Your task to perform on an android device: Search for Italian restaurants on Maps Image 0: 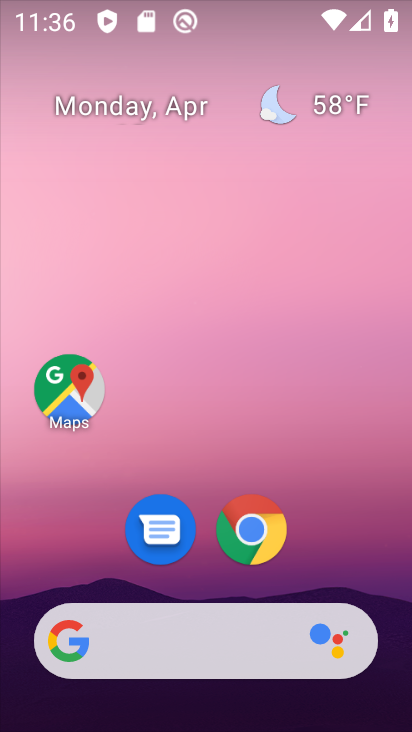
Step 0: drag from (397, 603) to (219, 51)
Your task to perform on an android device: Search for Italian restaurants on Maps Image 1: 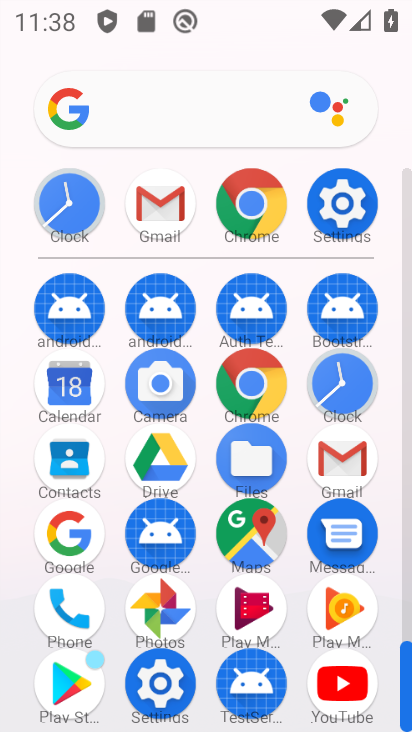
Step 1: click (267, 526)
Your task to perform on an android device: Search for Italian restaurants on Maps Image 2: 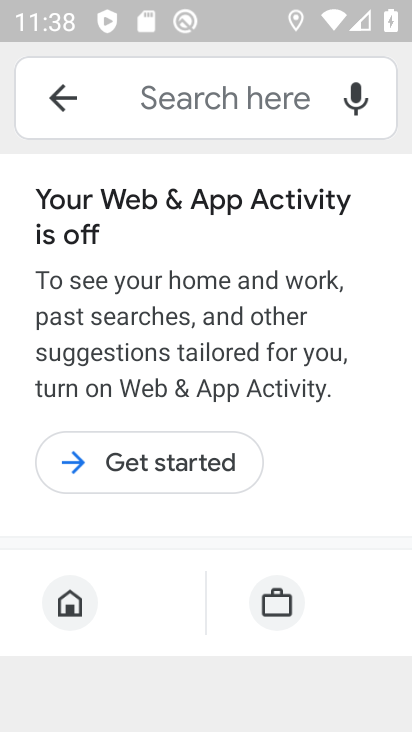
Step 2: click (103, 466)
Your task to perform on an android device: Search for Italian restaurants on Maps Image 3: 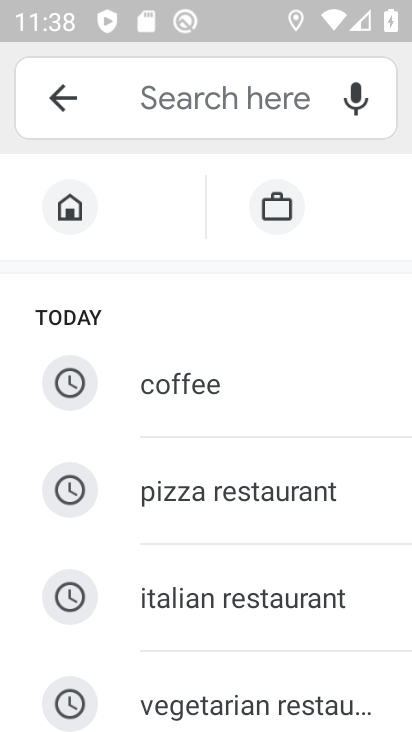
Step 3: click (259, 591)
Your task to perform on an android device: Search for Italian restaurants on Maps Image 4: 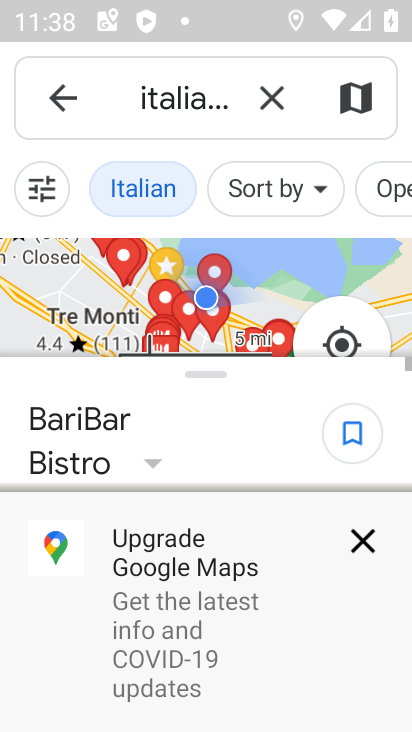
Step 4: task complete